Your task to perform on an android device: star an email in the gmail app Image 0: 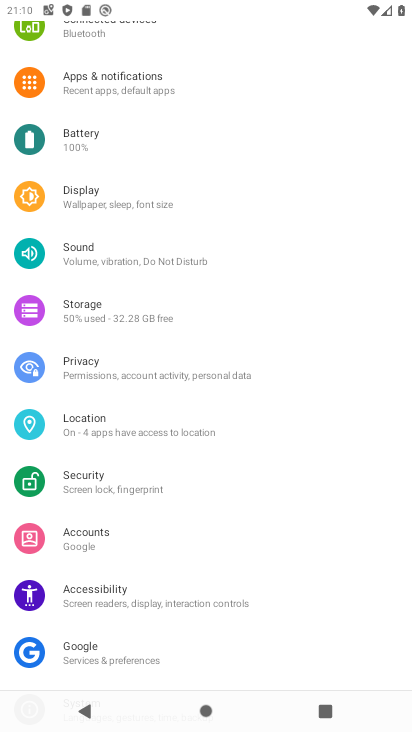
Step 0: press home button
Your task to perform on an android device: star an email in the gmail app Image 1: 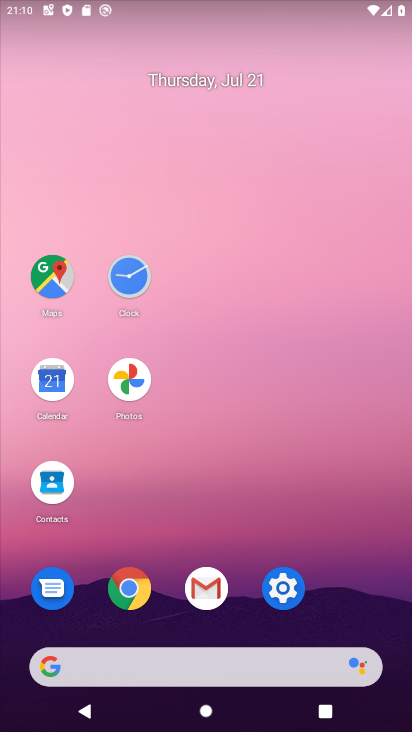
Step 1: click (207, 586)
Your task to perform on an android device: star an email in the gmail app Image 2: 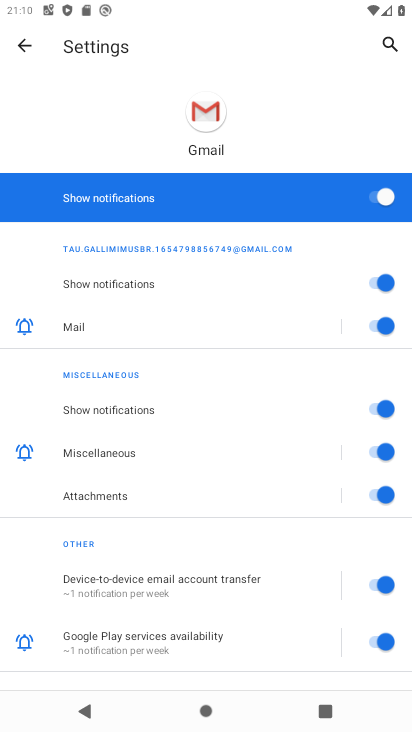
Step 2: click (21, 43)
Your task to perform on an android device: star an email in the gmail app Image 3: 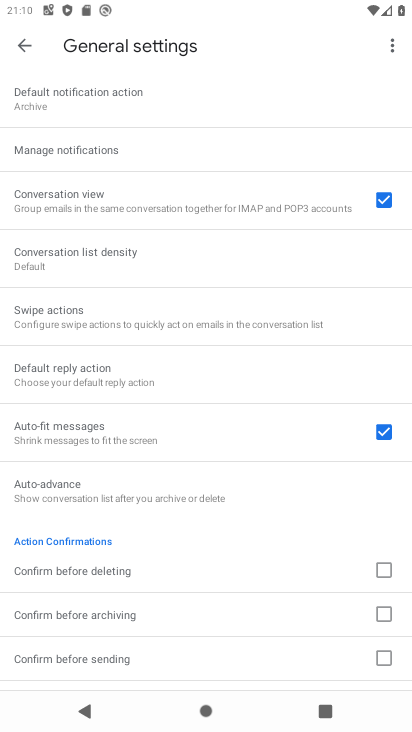
Step 3: click (22, 38)
Your task to perform on an android device: star an email in the gmail app Image 4: 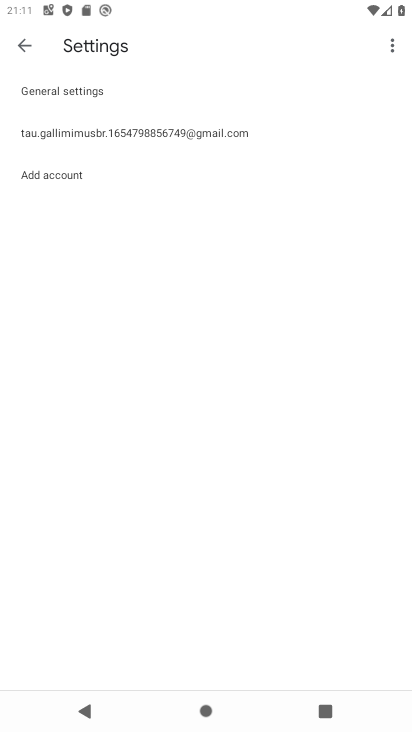
Step 4: click (22, 45)
Your task to perform on an android device: star an email in the gmail app Image 5: 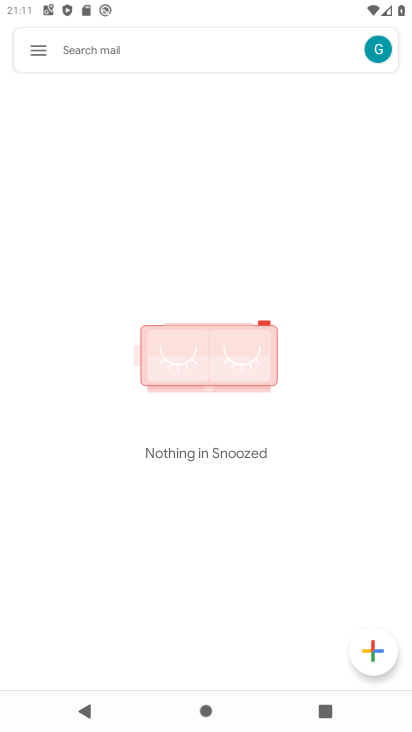
Step 5: click (33, 46)
Your task to perform on an android device: star an email in the gmail app Image 6: 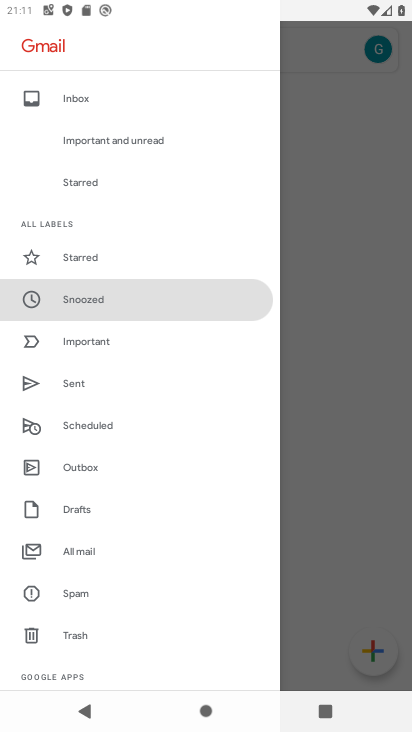
Step 6: click (78, 550)
Your task to perform on an android device: star an email in the gmail app Image 7: 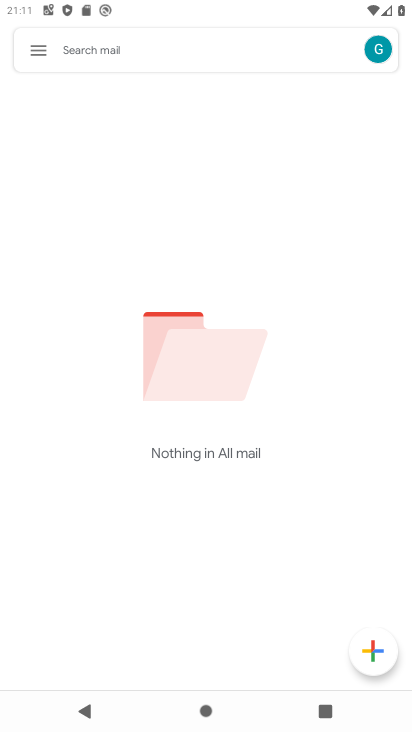
Step 7: task complete